Your task to perform on an android device: Set the phone to "Do not disturb". Image 0: 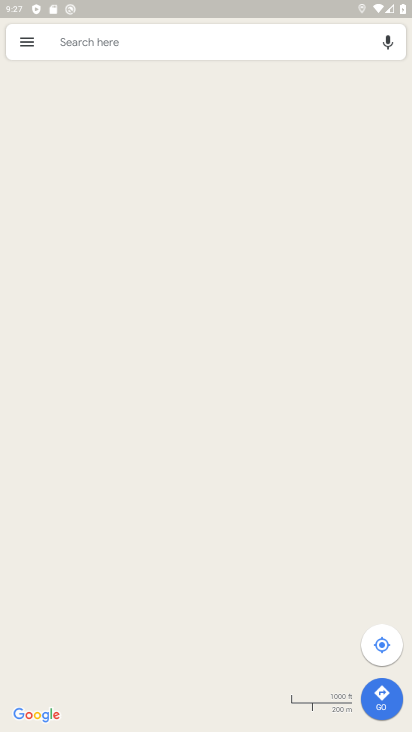
Step 0: press home button
Your task to perform on an android device: Set the phone to "Do not disturb". Image 1: 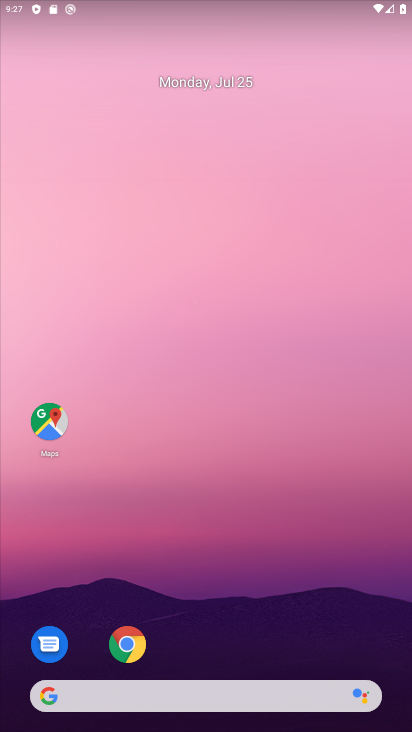
Step 1: drag from (248, 611) to (242, 129)
Your task to perform on an android device: Set the phone to "Do not disturb". Image 2: 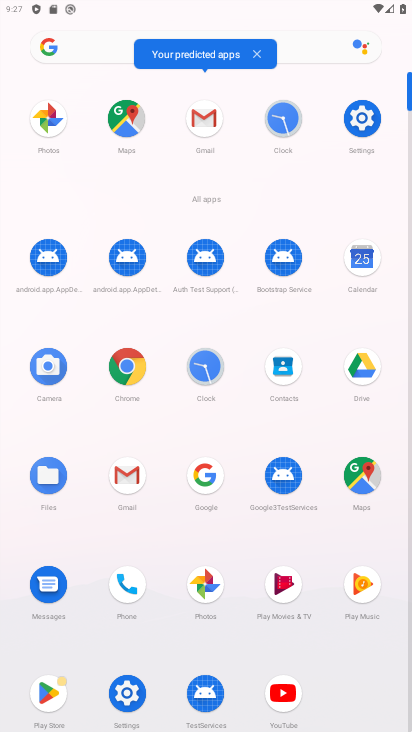
Step 2: drag from (360, 123) to (75, 136)
Your task to perform on an android device: Set the phone to "Do not disturb". Image 3: 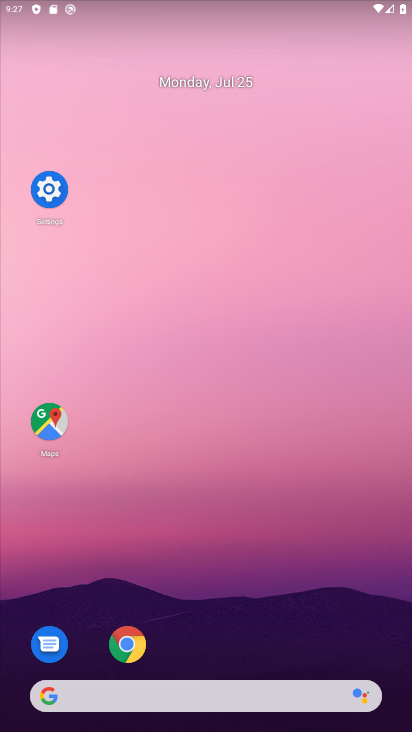
Step 3: click (58, 175)
Your task to perform on an android device: Set the phone to "Do not disturb". Image 4: 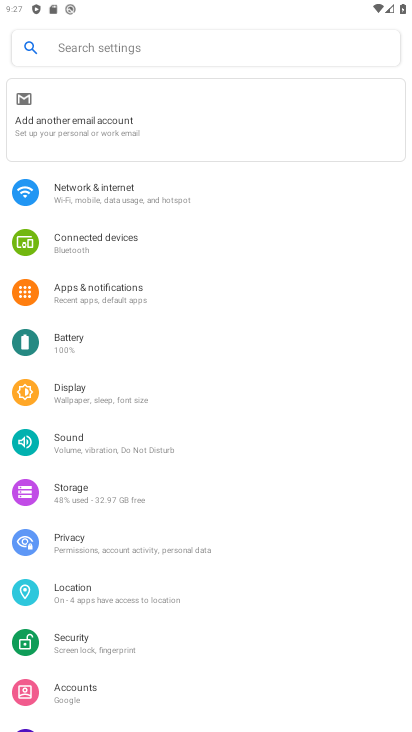
Step 4: click (73, 452)
Your task to perform on an android device: Set the phone to "Do not disturb". Image 5: 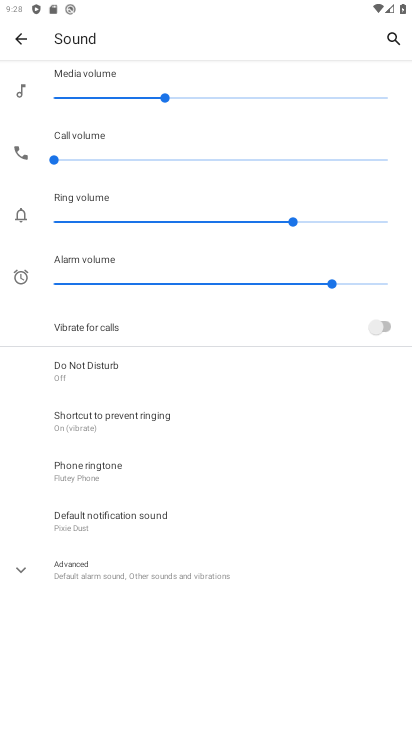
Step 5: click (141, 363)
Your task to perform on an android device: Set the phone to "Do not disturb". Image 6: 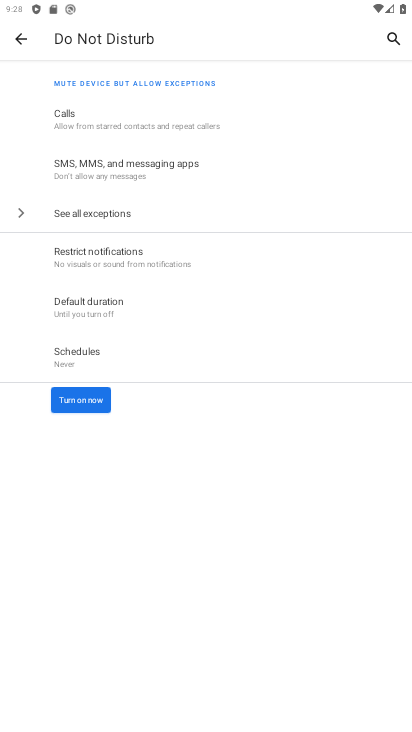
Step 6: click (69, 403)
Your task to perform on an android device: Set the phone to "Do not disturb". Image 7: 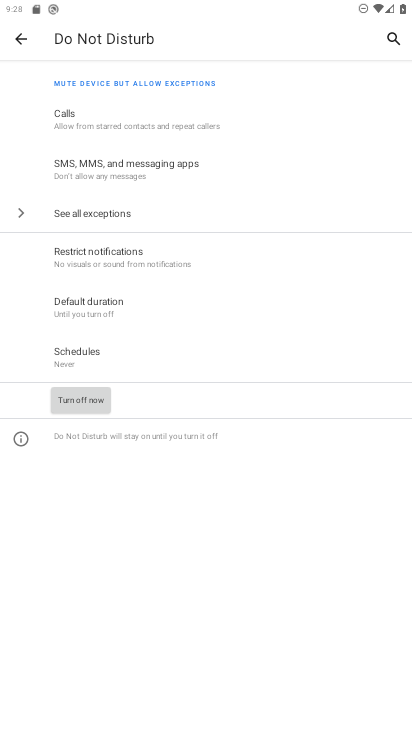
Step 7: task complete